Your task to perform on an android device: open app "Instagram" Image 0: 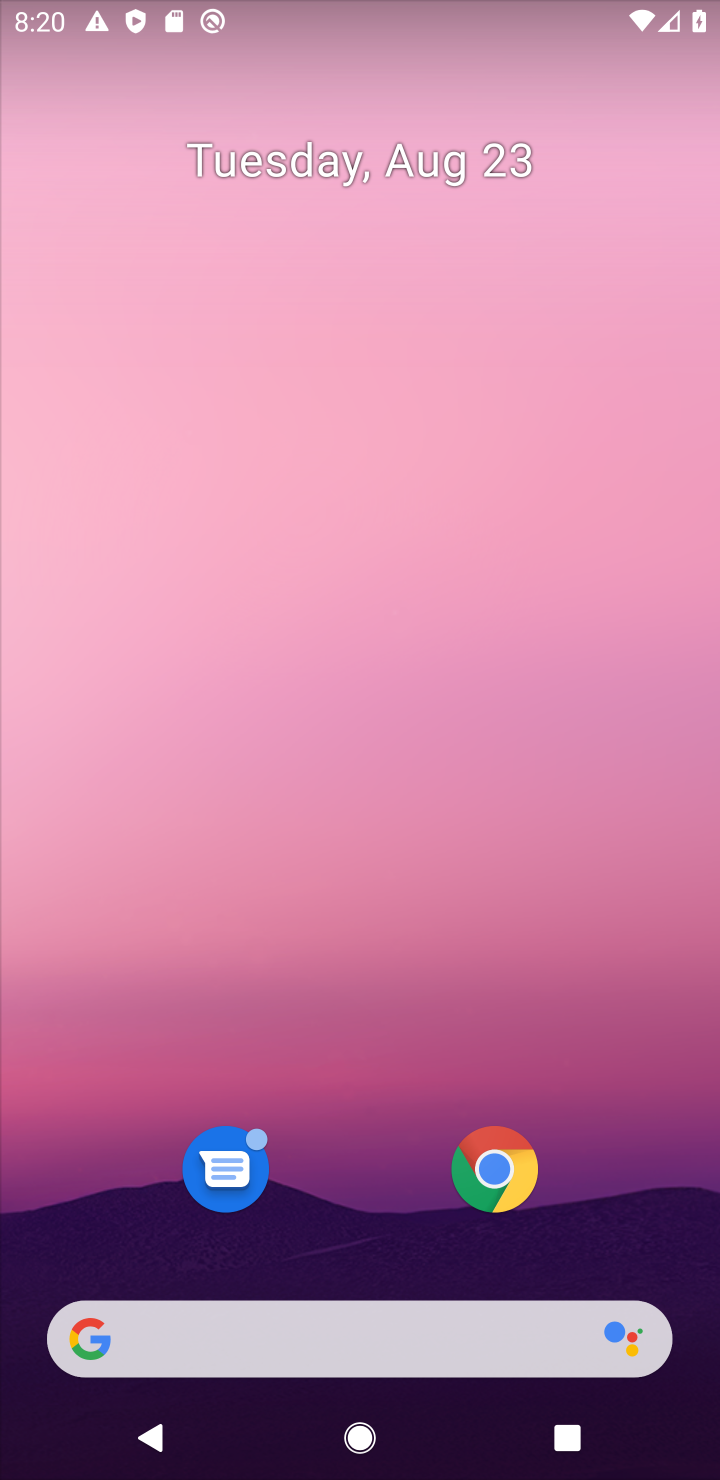
Step 0: drag from (349, 1236) to (189, 10)
Your task to perform on an android device: open app "Instagram" Image 1: 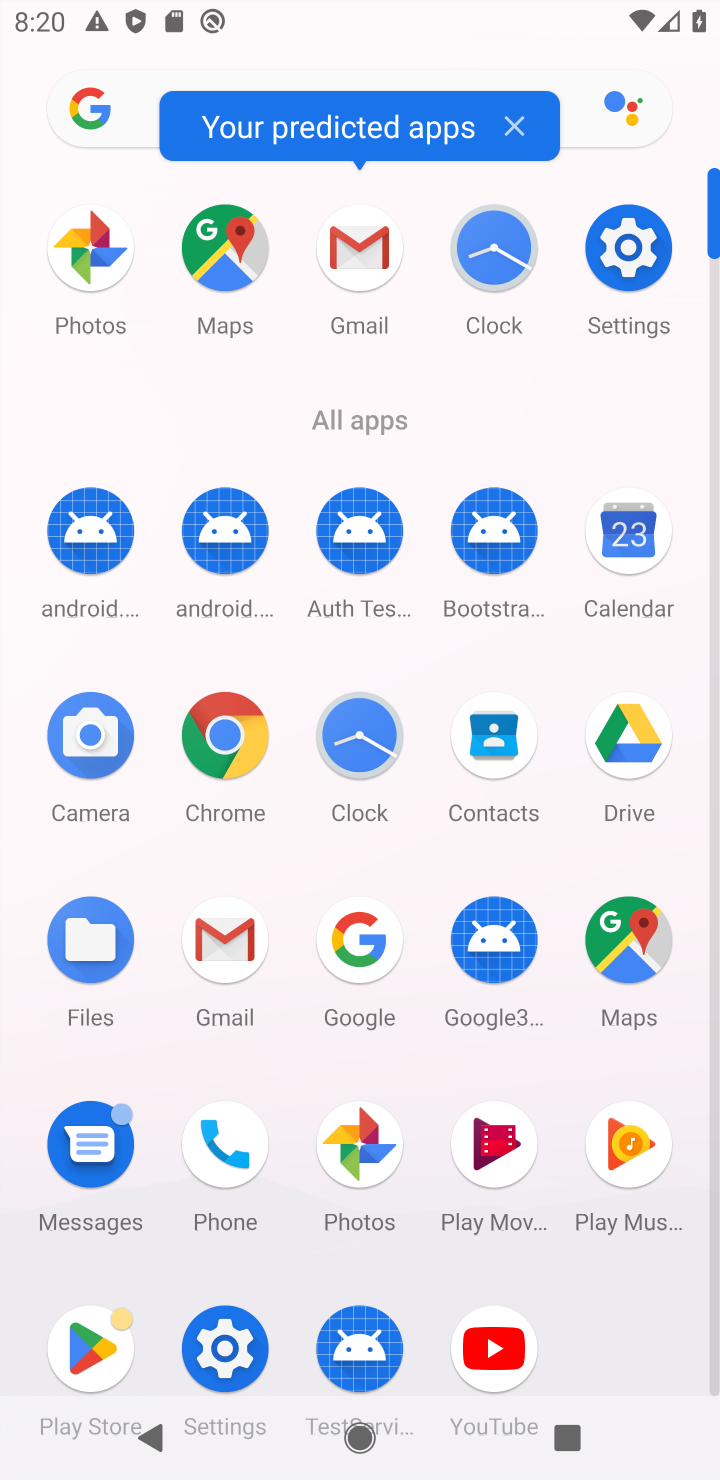
Step 1: click (71, 1336)
Your task to perform on an android device: open app "Instagram" Image 2: 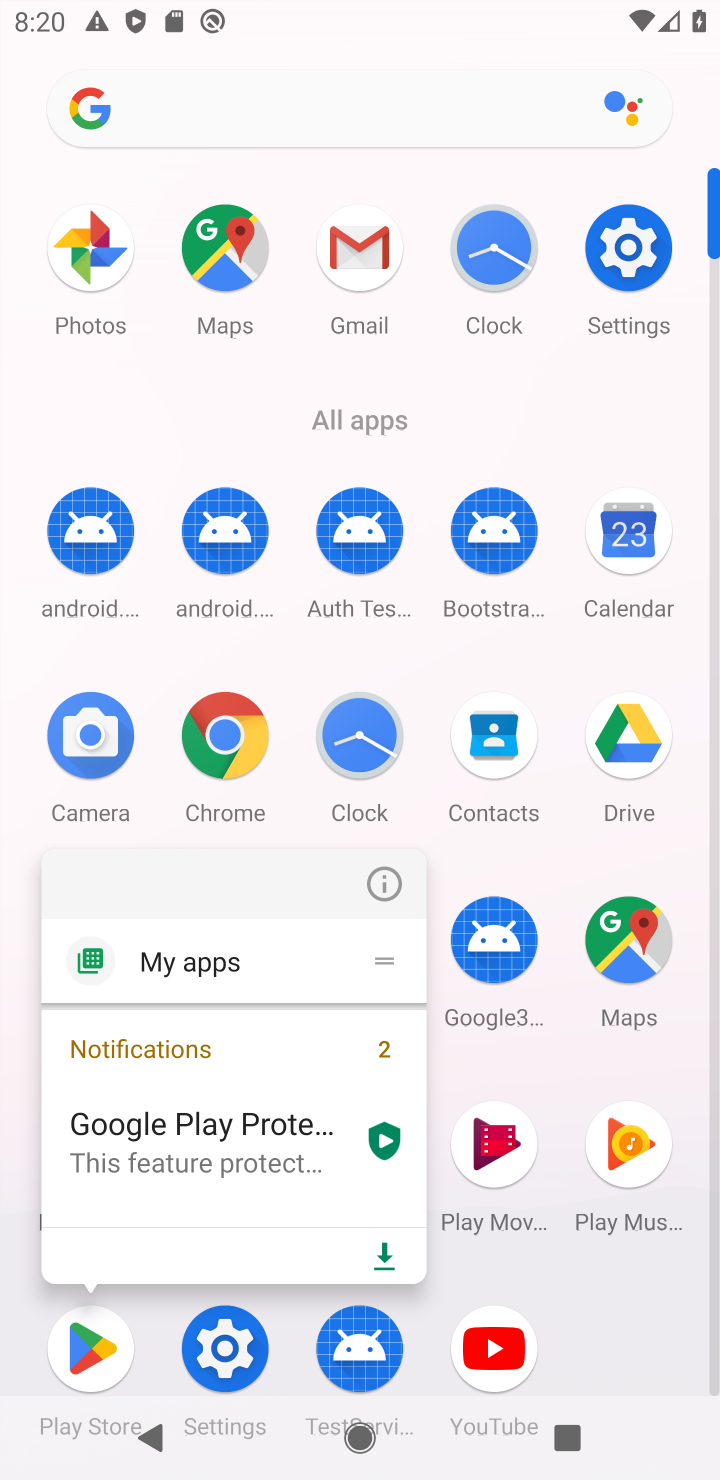
Step 2: click (105, 1339)
Your task to perform on an android device: open app "Instagram" Image 3: 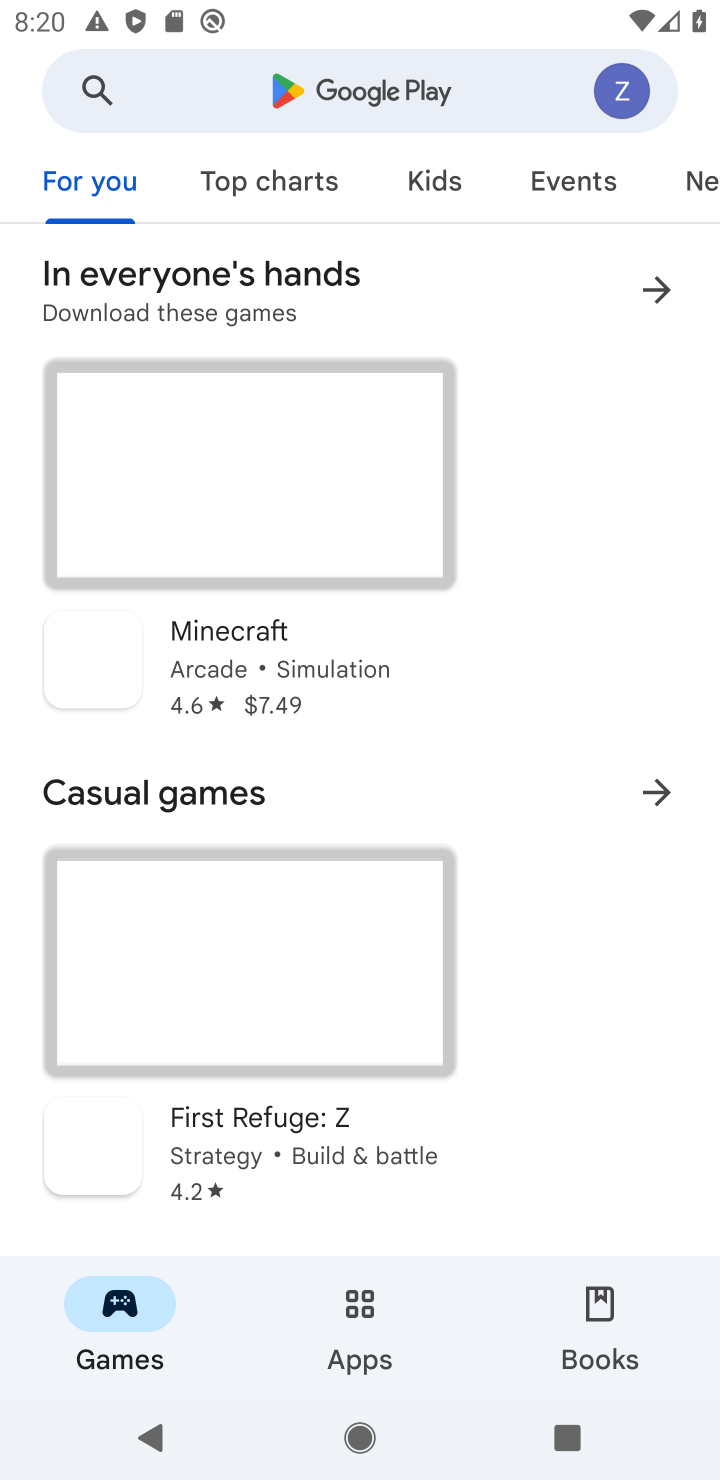
Step 3: click (382, 93)
Your task to perform on an android device: open app "Instagram" Image 4: 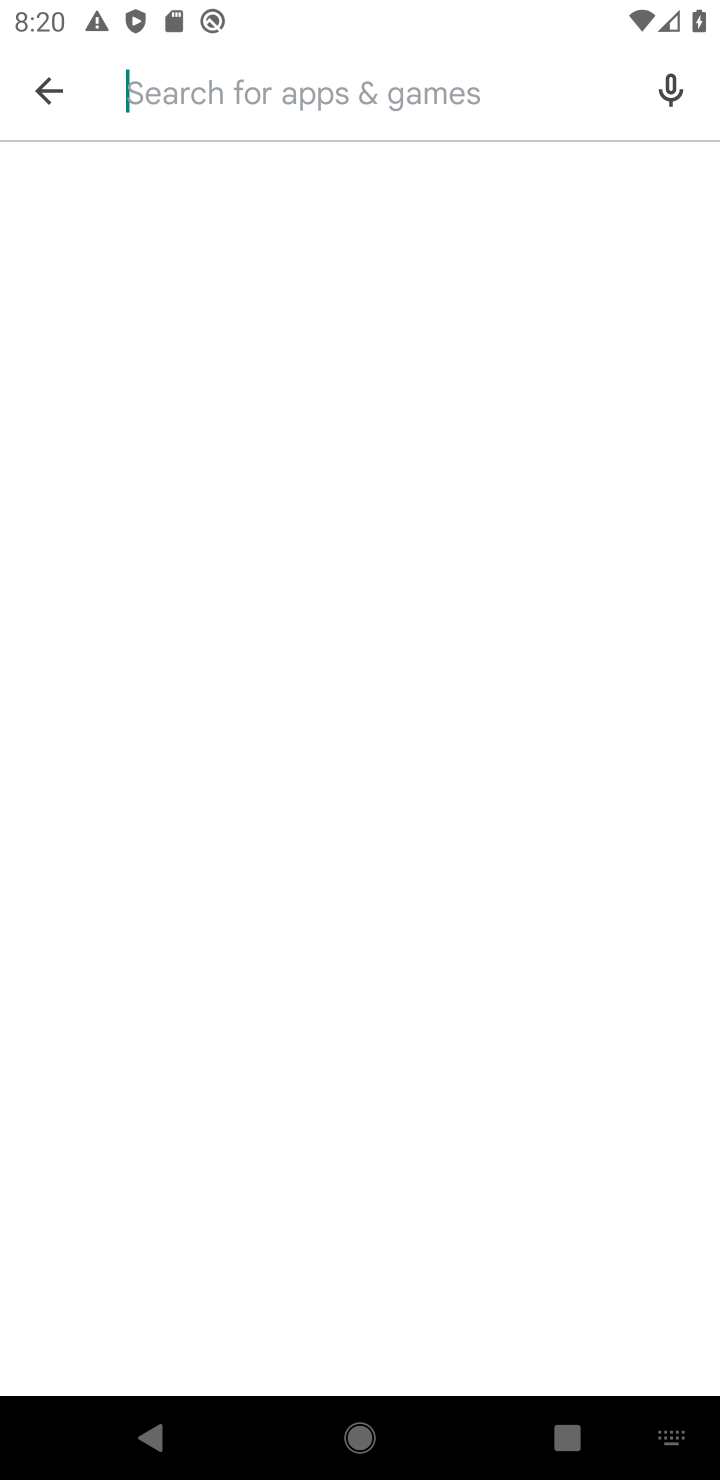
Step 4: type "Instagram"
Your task to perform on an android device: open app "Instagram" Image 5: 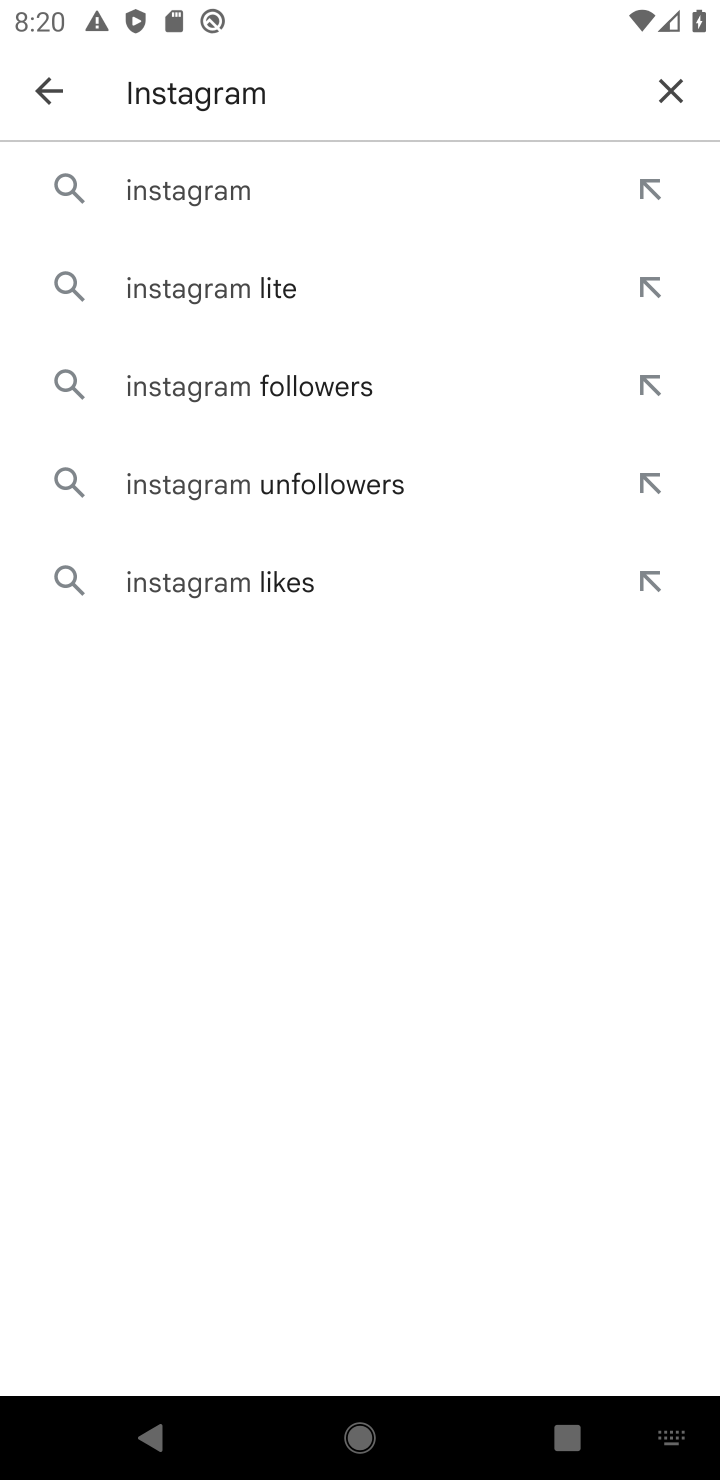
Step 5: click (276, 199)
Your task to perform on an android device: open app "Instagram" Image 6: 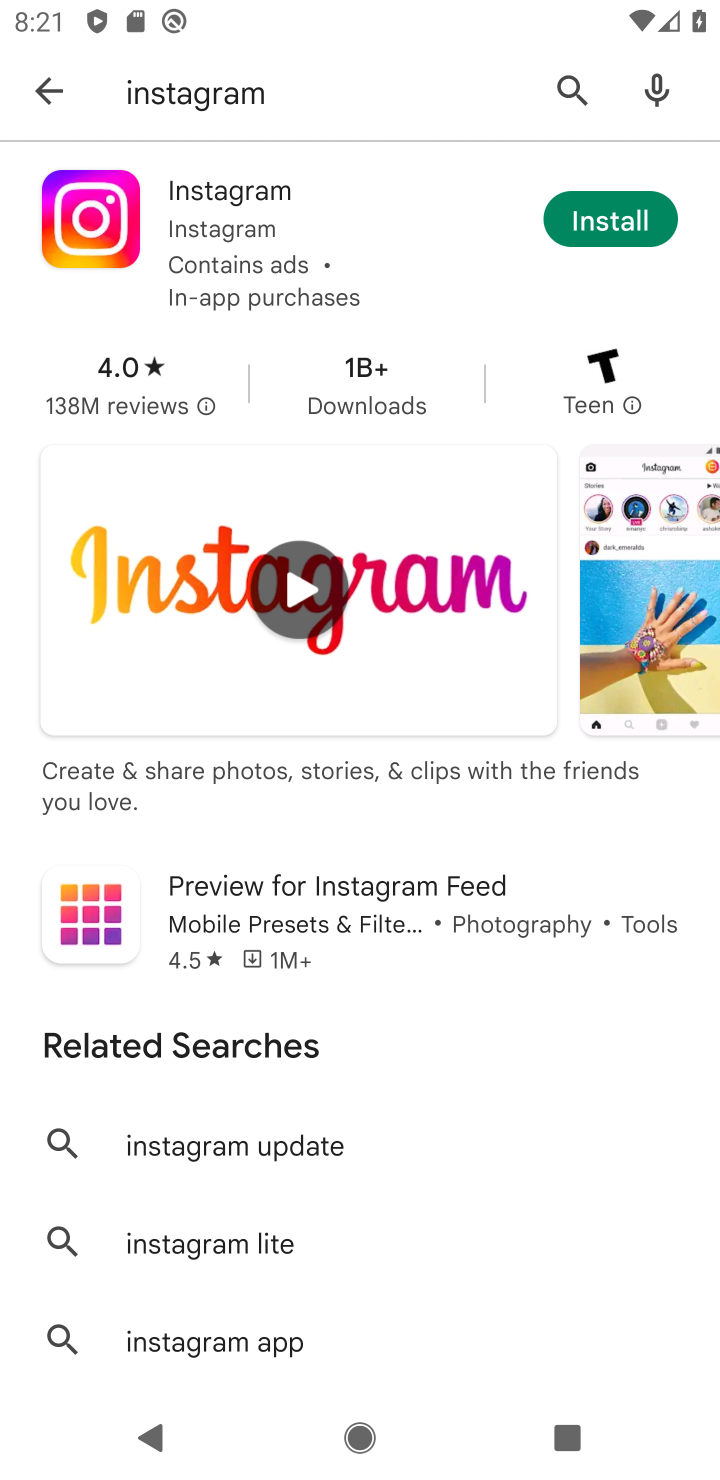
Step 6: click (615, 213)
Your task to perform on an android device: open app "Instagram" Image 7: 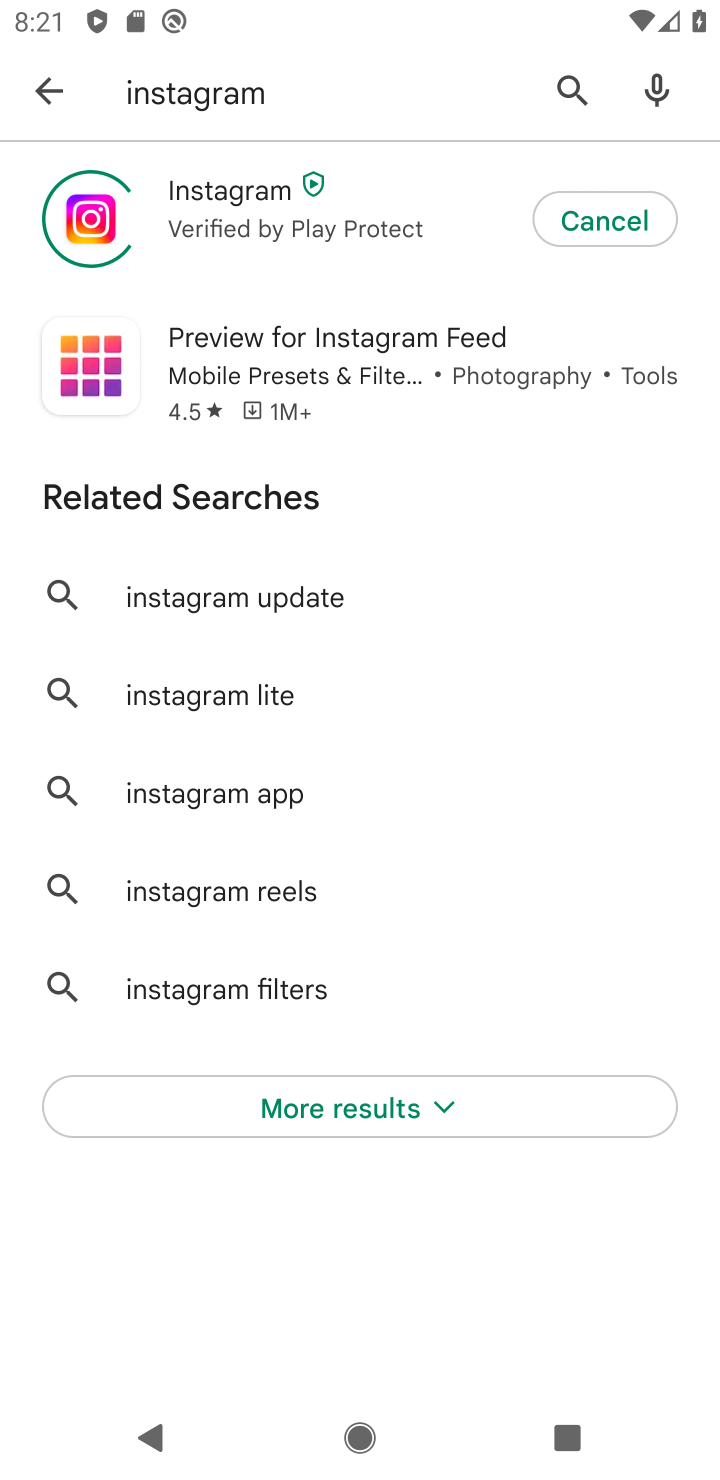
Step 7: click (612, 217)
Your task to perform on an android device: open app "Instagram" Image 8: 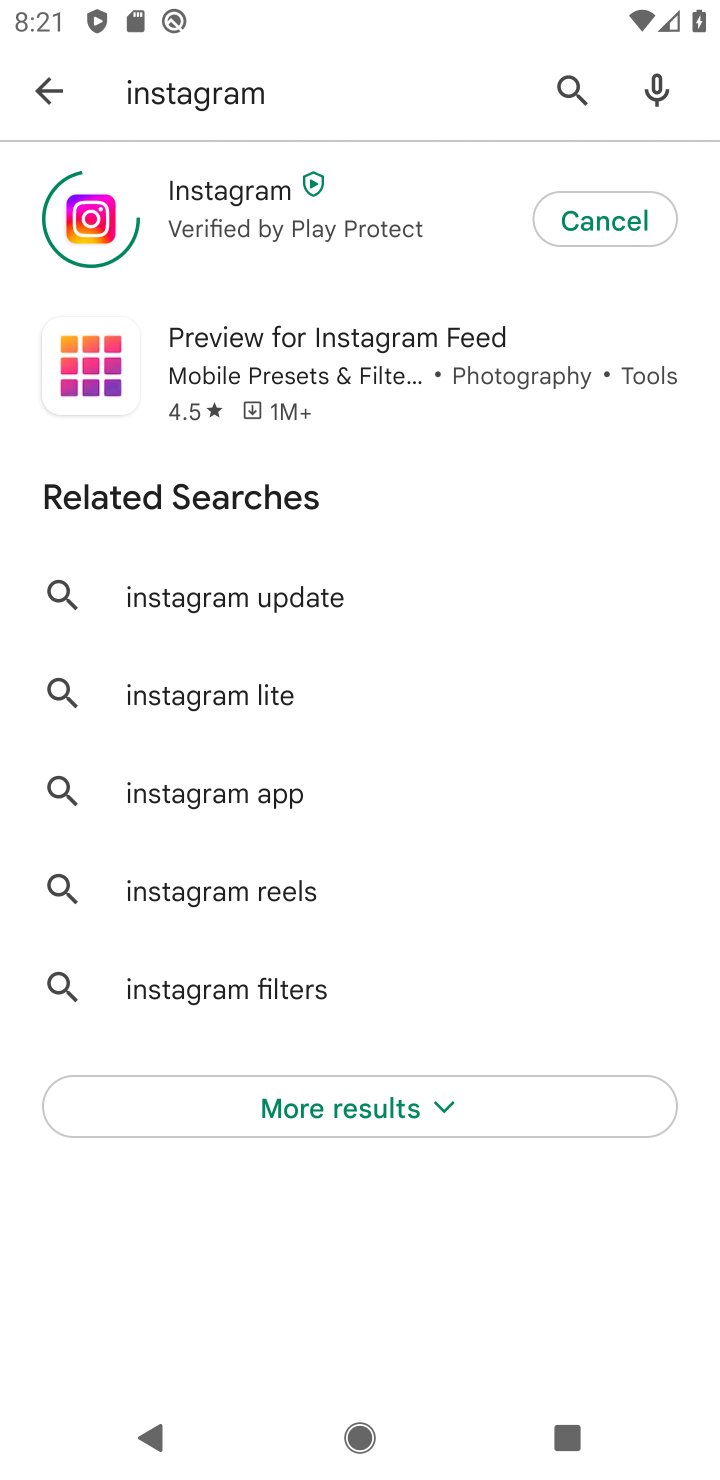
Step 8: task complete